Your task to perform on an android device: Open the map Image 0: 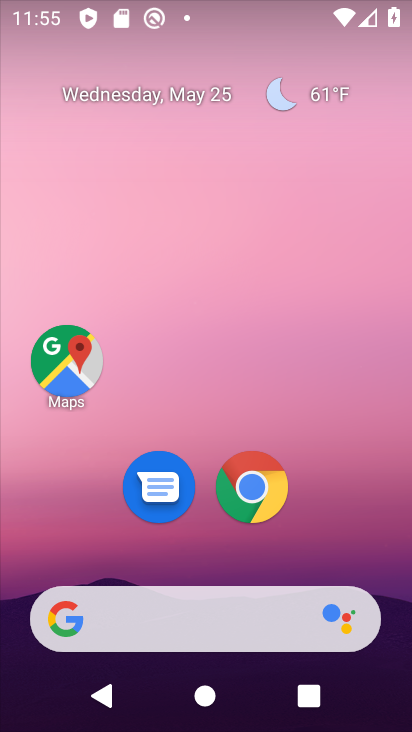
Step 0: drag from (255, 641) to (219, 275)
Your task to perform on an android device: Open the map Image 1: 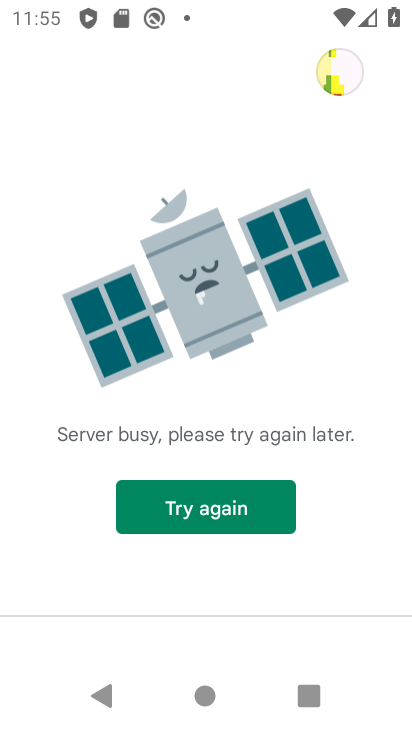
Step 1: press back button
Your task to perform on an android device: Open the map Image 2: 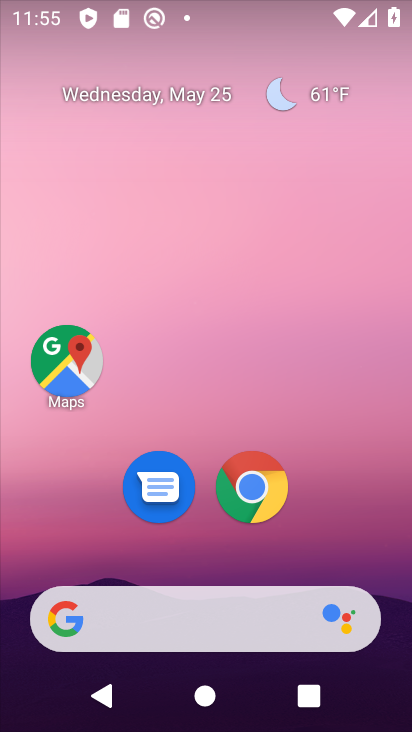
Step 2: drag from (256, 663) to (161, 135)
Your task to perform on an android device: Open the map Image 3: 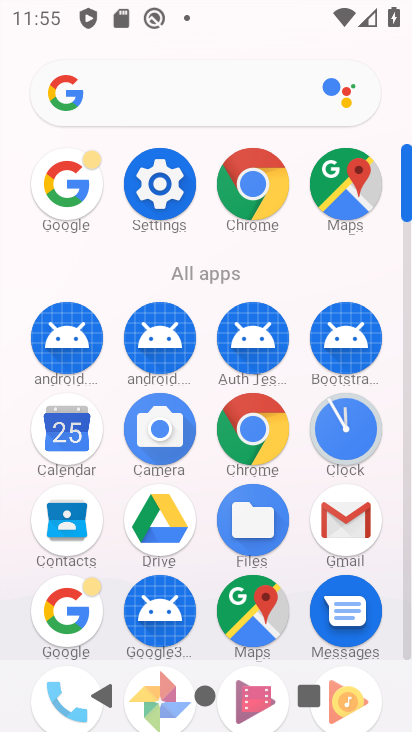
Step 3: click (257, 607)
Your task to perform on an android device: Open the map Image 4: 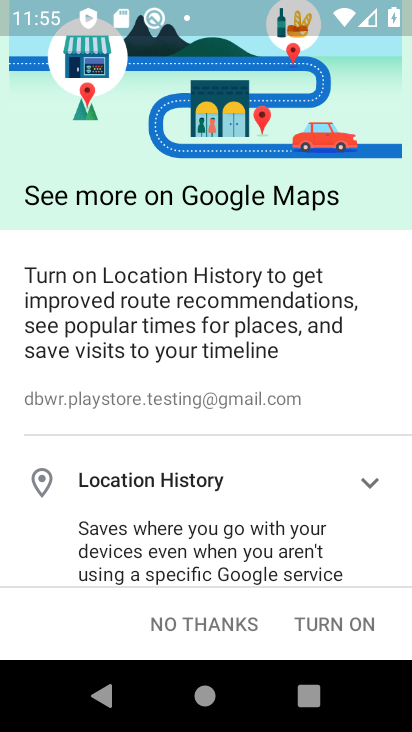
Step 4: task complete